Your task to perform on an android device: What's the news this evening? Image 0: 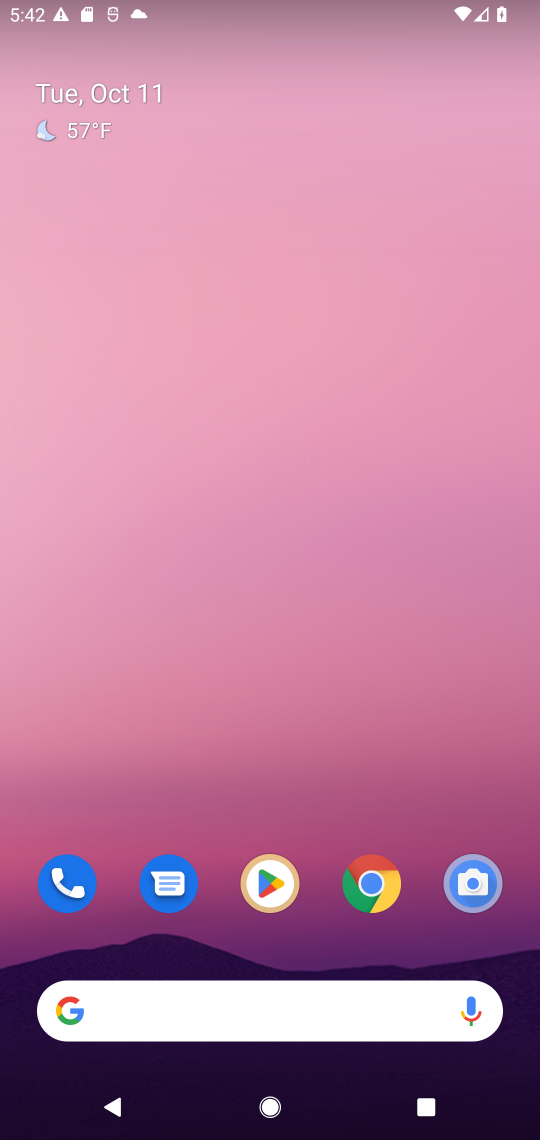
Step 0: drag from (344, 767) to (349, 105)
Your task to perform on an android device: What's the news this evening? Image 1: 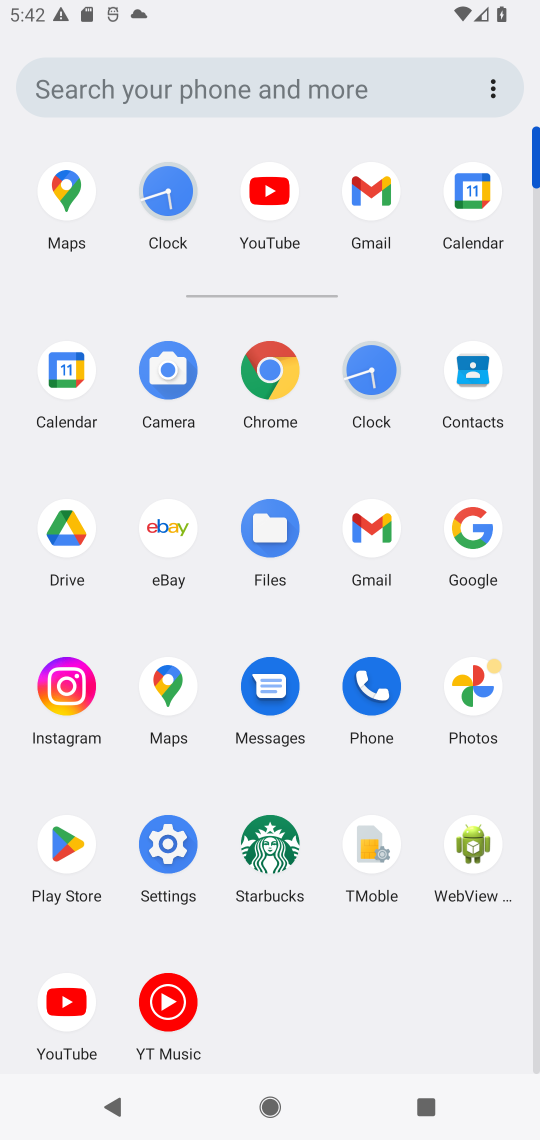
Step 1: click (275, 372)
Your task to perform on an android device: What's the news this evening? Image 2: 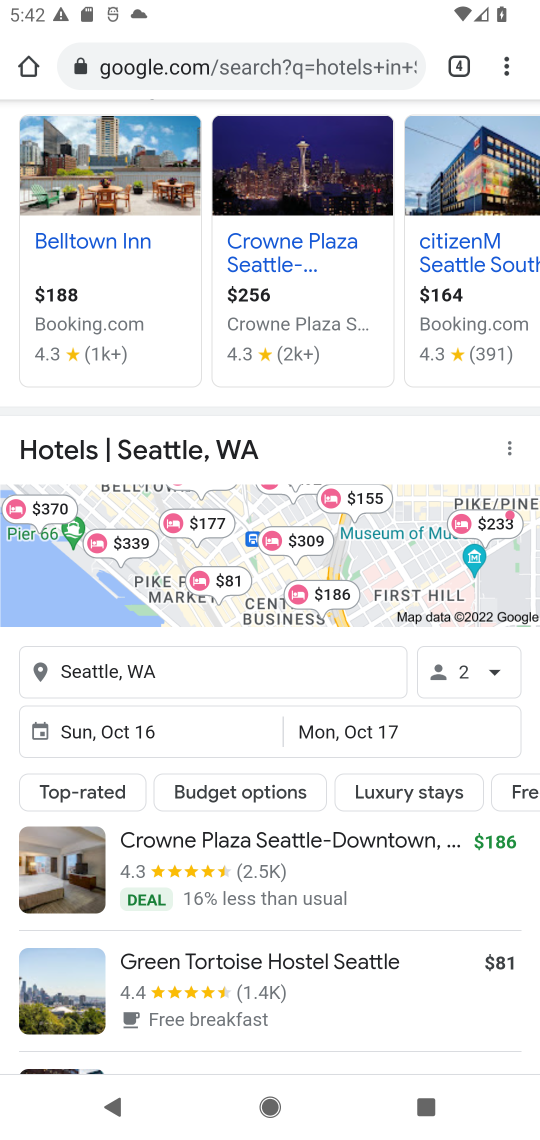
Step 2: click (278, 61)
Your task to perform on an android device: What's the news this evening? Image 3: 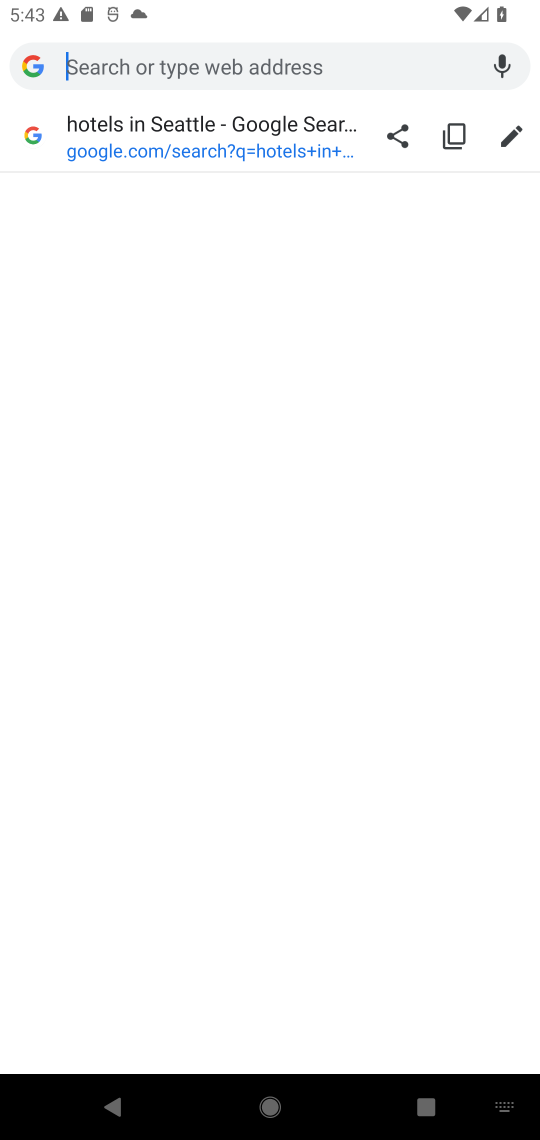
Step 3: type "What's the news this evening?"
Your task to perform on an android device: What's the news this evening? Image 4: 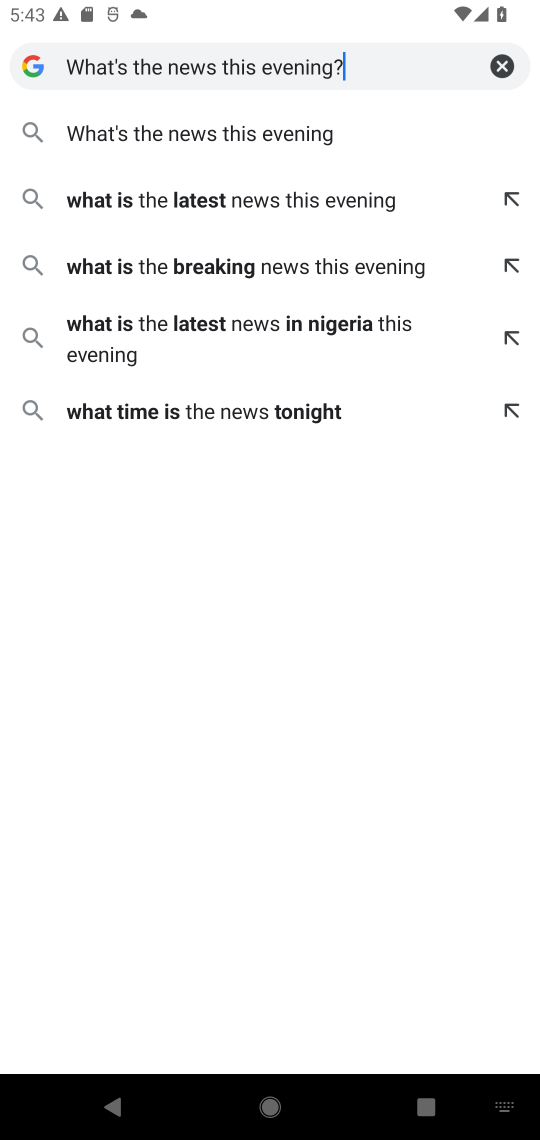
Step 4: press enter
Your task to perform on an android device: What's the news this evening? Image 5: 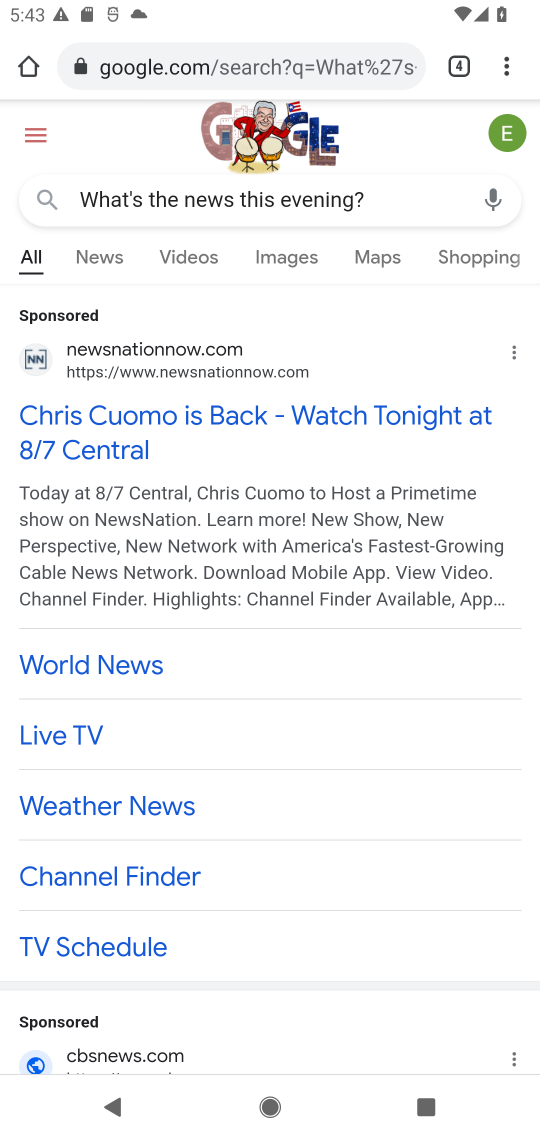
Step 5: drag from (299, 705) to (280, 203)
Your task to perform on an android device: What's the news this evening? Image 6: 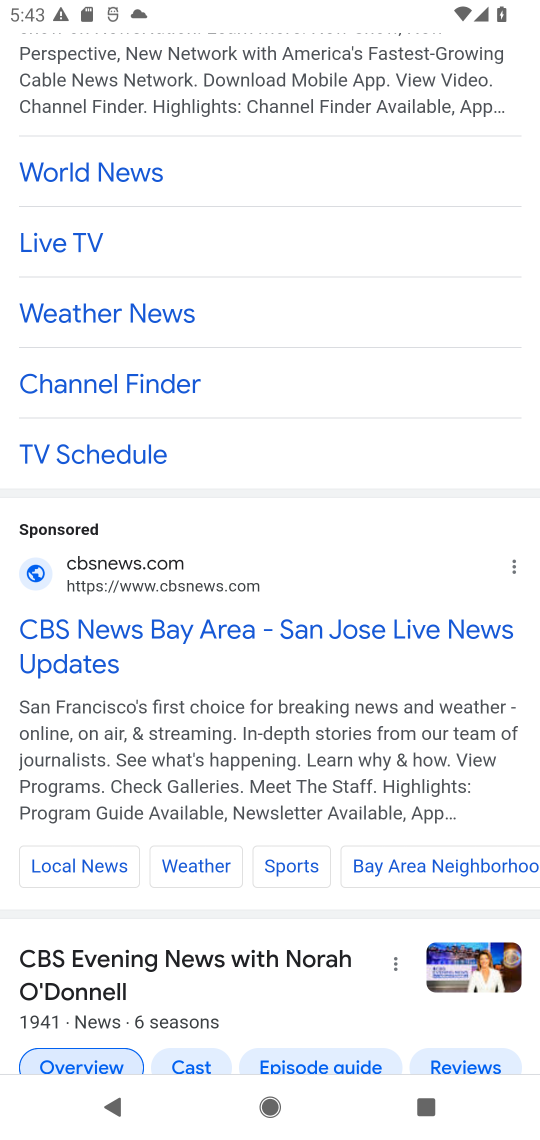
Step 6: click (348, 627)
Your task to perform on an android device: What's the news this evening? Image 7: 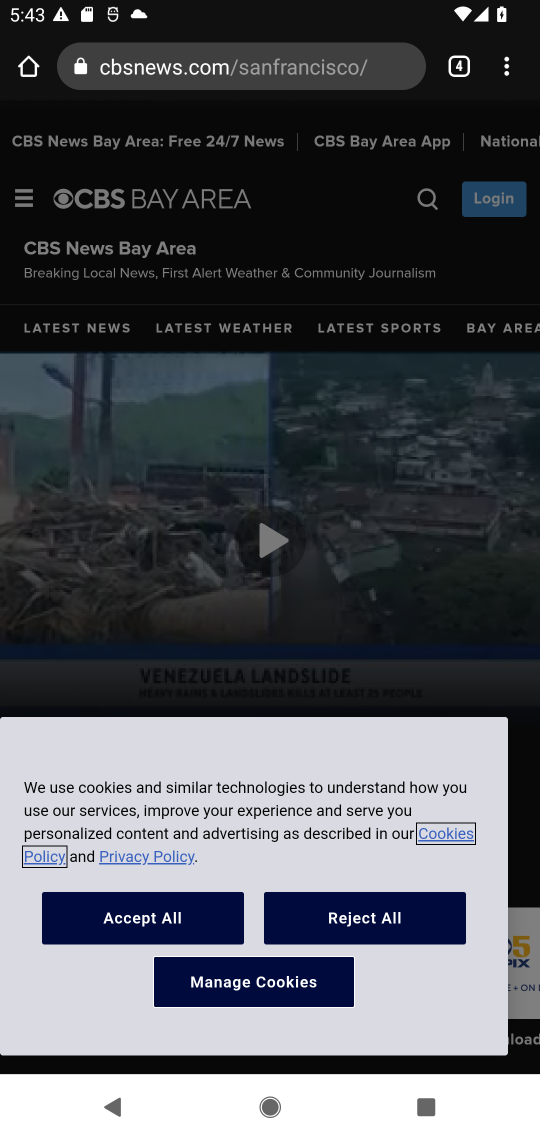
Step 7: task complete